Your task to perform on an android device: empty trash in google photos Image 0: 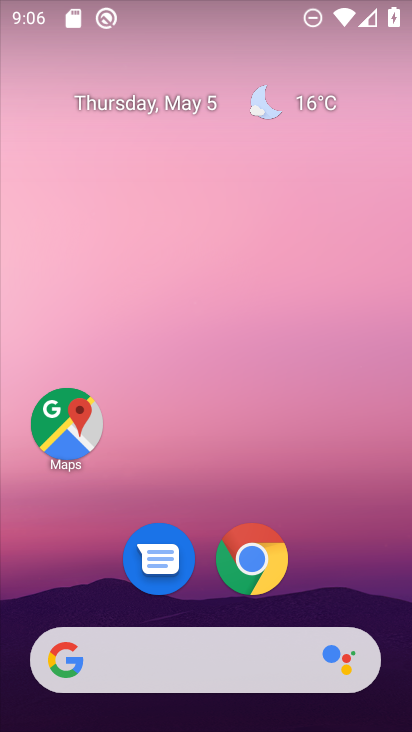
Step 0: drag from (351, 591) to (322, 14)
Your task to perform on an android device: empty trash in google photos Image 1: 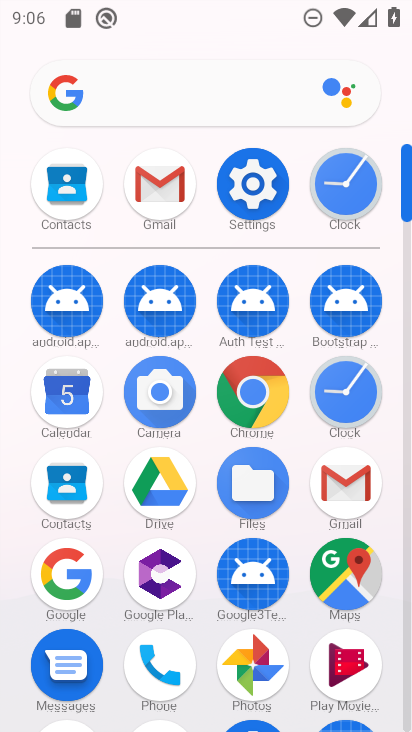
Step 1: click (256, 671)
Your task to perform on an android device: empty trash in google photos Image 2: 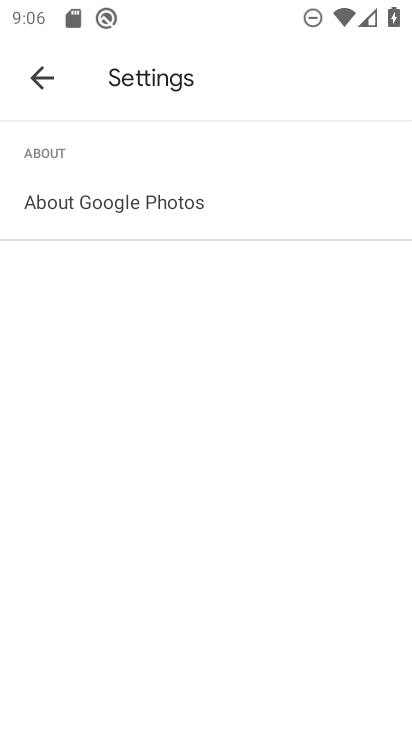
Step 2: click (35, 78)
Your task to perform on an android device: empty trash in google photos Image 3: 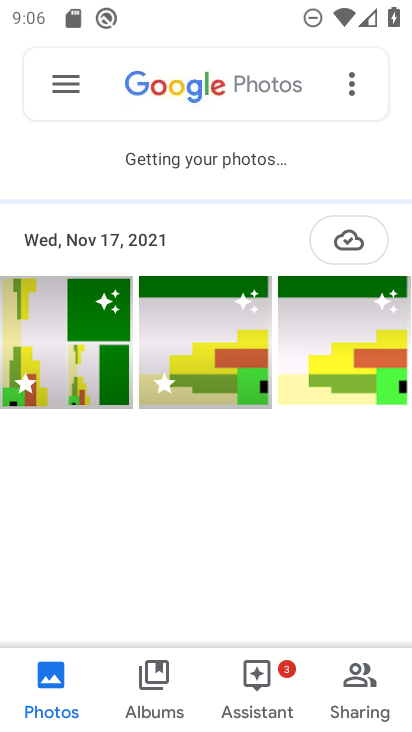
Step 3: click (59, 78)
Your task to perform on an android device: empty trash in google photos Image 4: 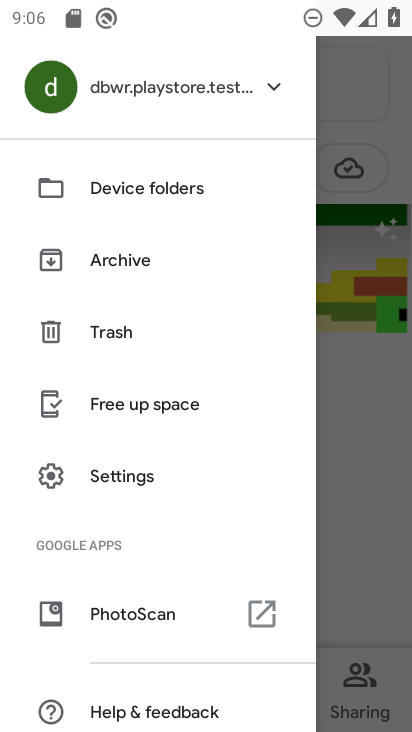
Step 4: click (113, 333)
Your task to perform on an android device: empty trash in google photos Image 5: 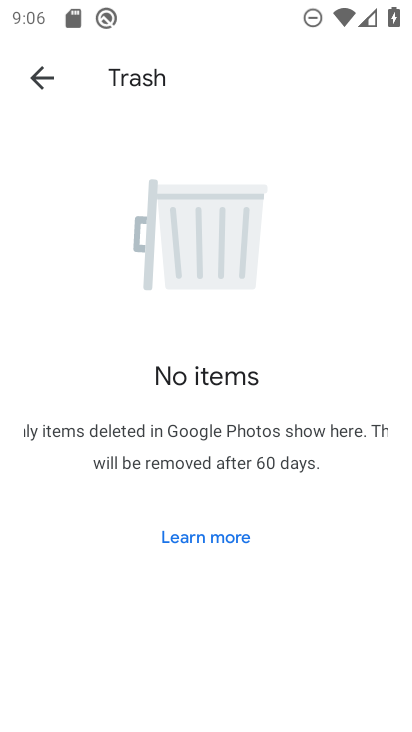
Step 5: task complete